Your task to perform on an android device: change text size in settings app Image 0: 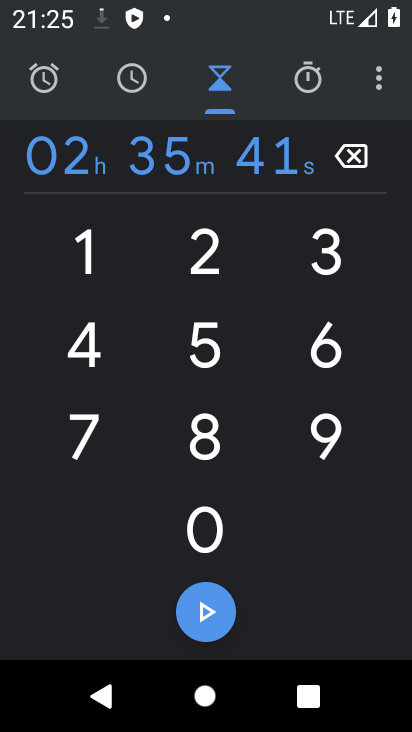
Step 0: press back button
Your task to perform on an android device: change text size in settings app Image 1: 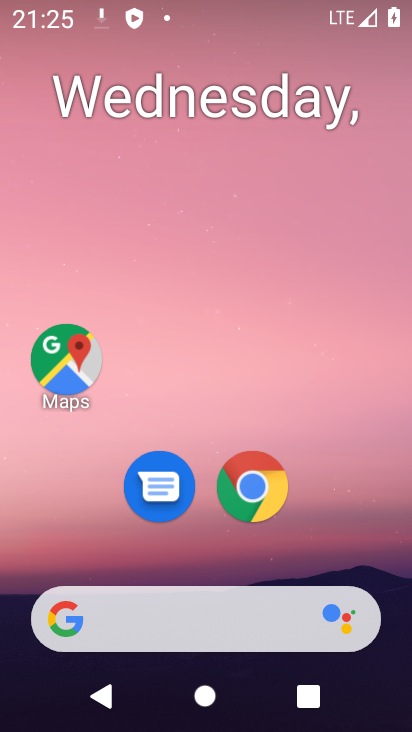
Step 1: drag from (115, 559) to (197, 13)
Your task to perform on an android device: change text size in settings app Image 2: 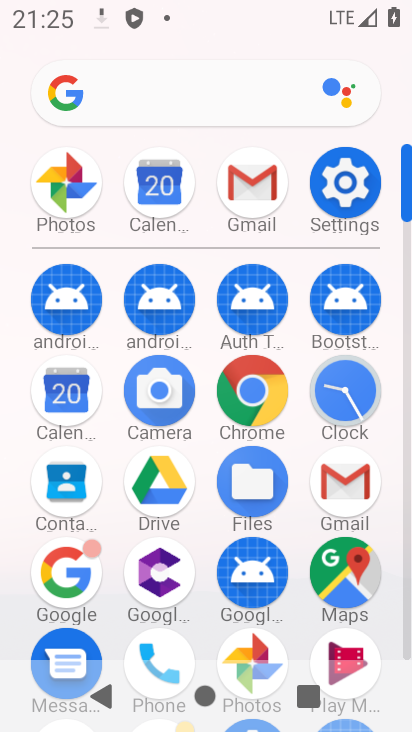
Step 2: click (340, 178)
Your task to perform on an android device: change text size in settings app Image 3: 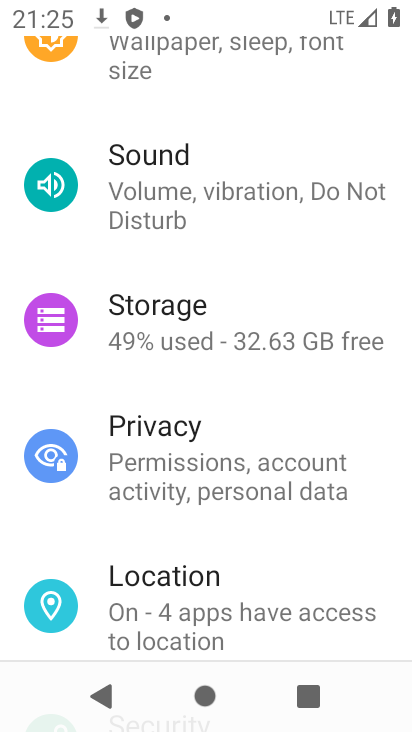
Step 3: drag from (264, 207) to (198, 697)
Your task to perform on an android device: change text size in settings app Image 4: 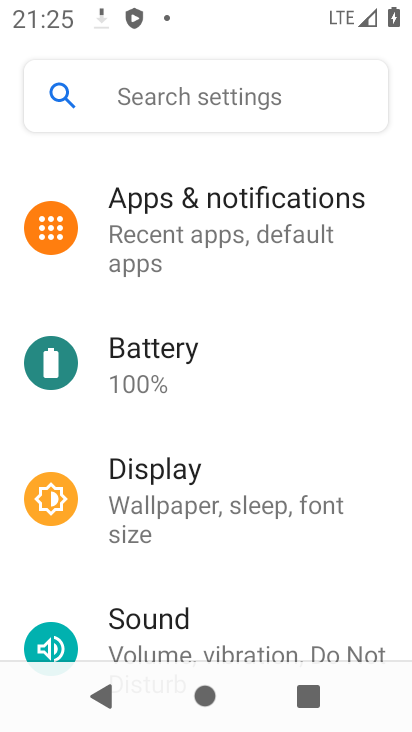
Step 4: drag from (221, 259) to (228, 628)
Your task to perform on an android device: change text size in settings app Image 5: 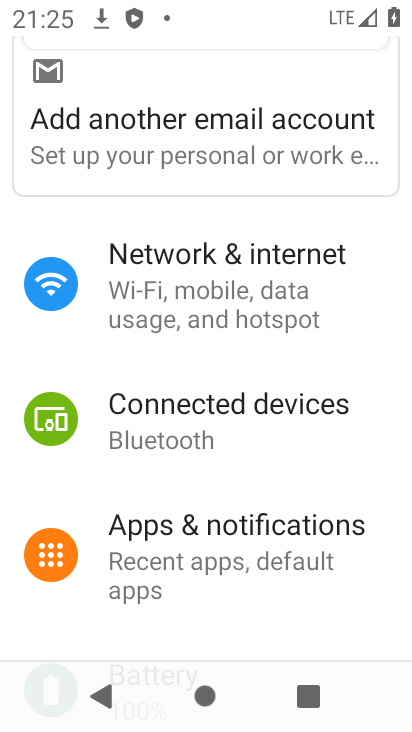
Step 5: click (154, 88)
Your task to perform on an android device: change text size in settings app Image 6: 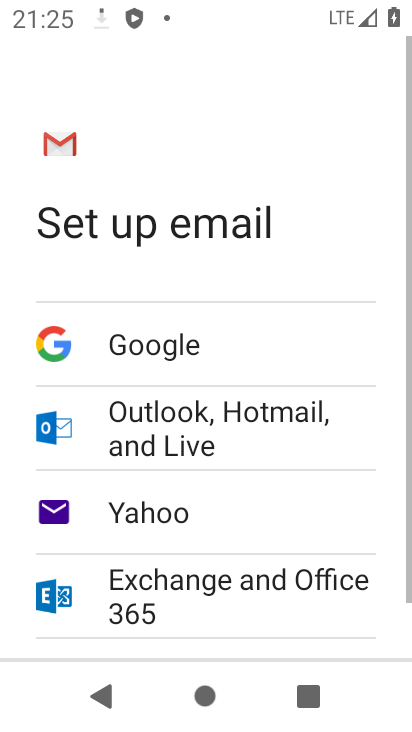
Step 6: press back button
Your task to perform on an android device: change text size in settings app Image 7: 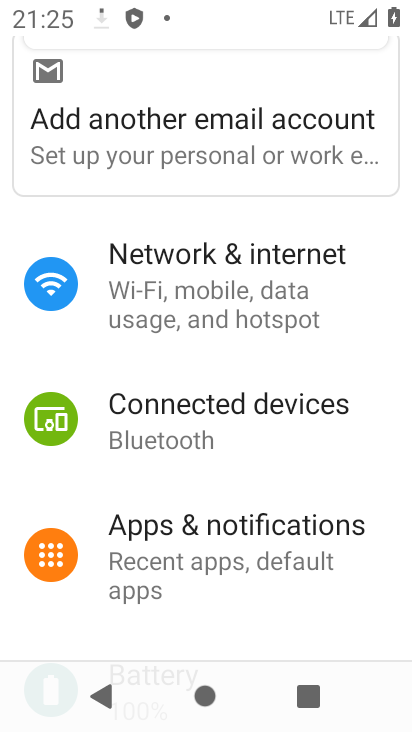
Step 7: drag from (233, 156) to (199, 669)
Your task to perform on an android device: change text size in settings app Image 8: 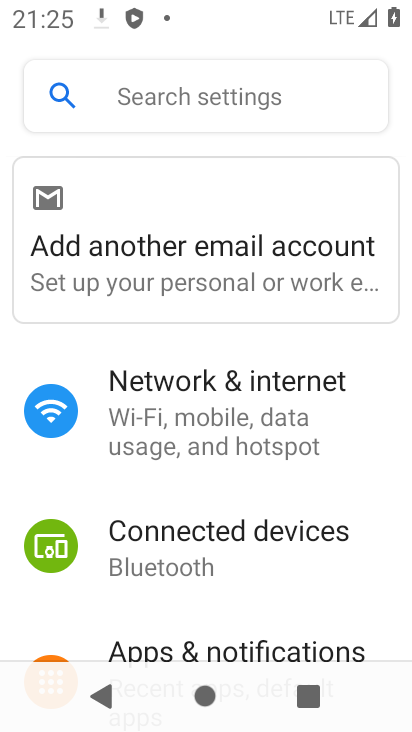
Step 8: click (195, 102)
Your task to perform on an android device: change text size in settings app Image 9: 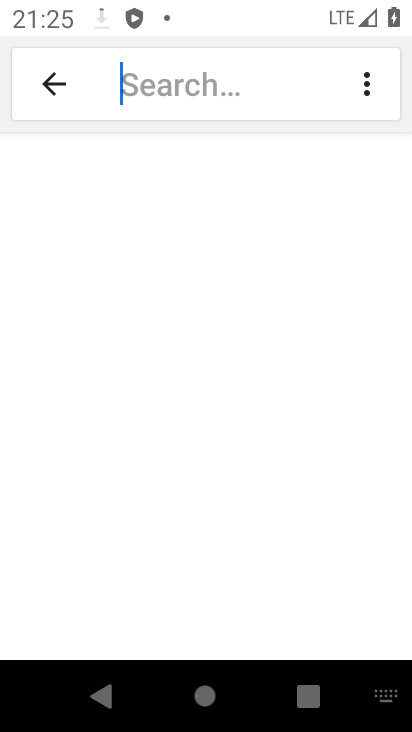
Step 9: type "text size"
Your task to perform on an android device: change text size in settings app Image 10: 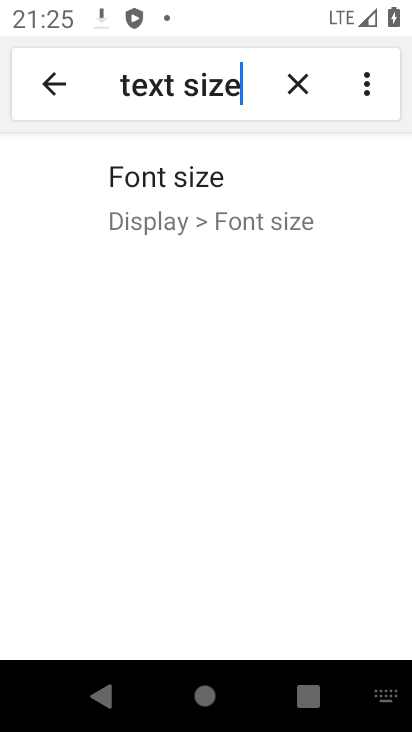
Step 10: click (199, 218)
Your task to perform on an android device: change text size in settings app Image 11: 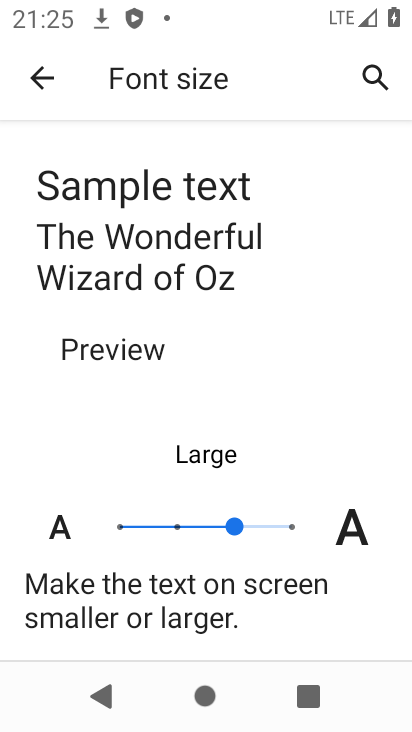
Step 11: task complete